Your task to perform on an android device: toggle translation in the chrome app Image 0: 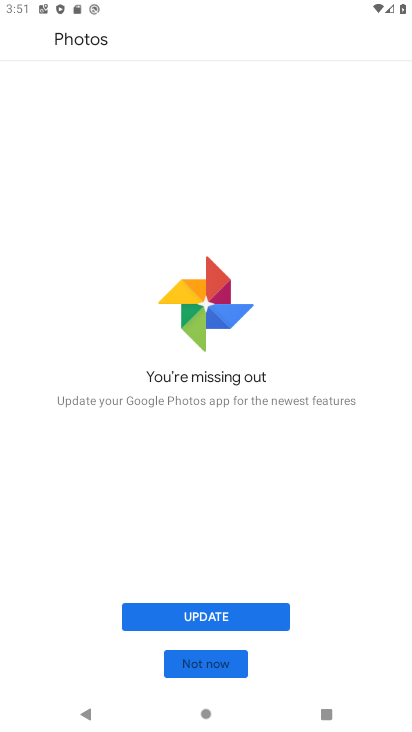
Step 0: press home button
Your task to perform on an android device: toggle translation in the chrome app Image 1: 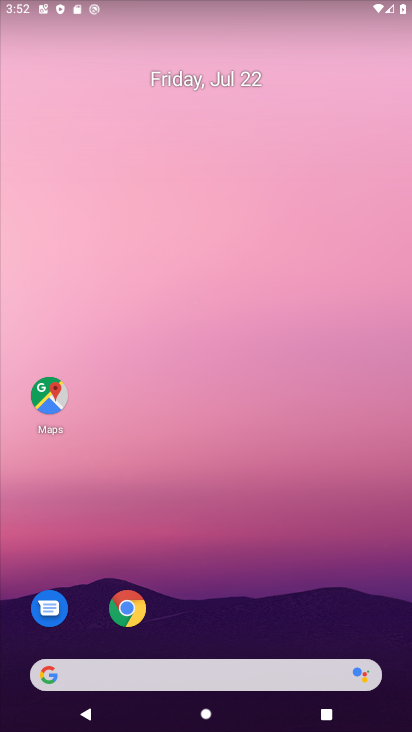
Step 1: click (123, 604)
Your task to perform on an android device: toggle translation in the chrome app Image 2: 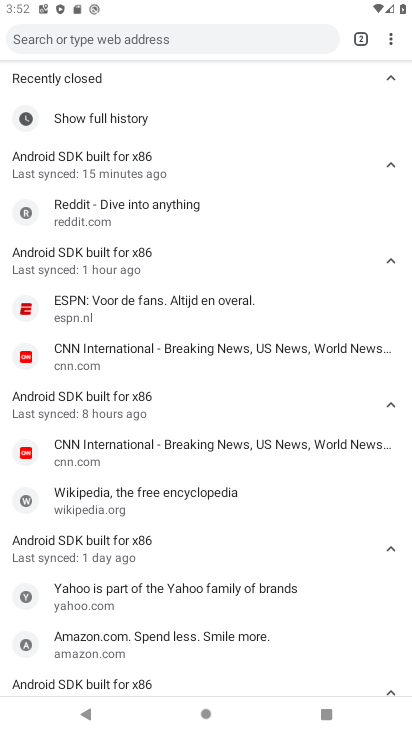
Step 2: click (393, 45)
Your task to perform on an android device: toggle translation in the chrome app Image 3: 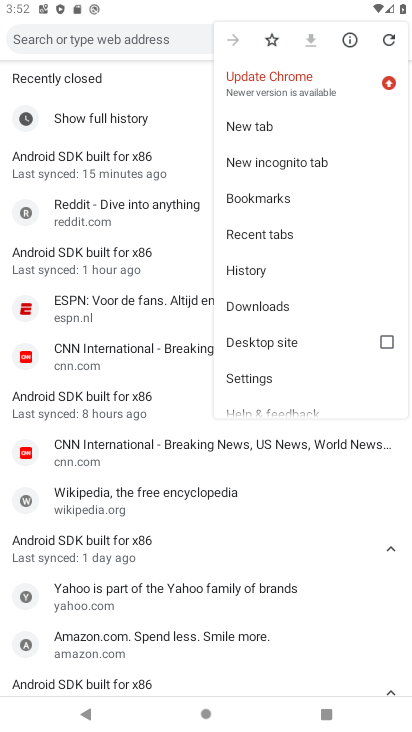
Step 3: click (253, 378)
Your task to perform on an android device: toggle translation in the chrome app Image 4: 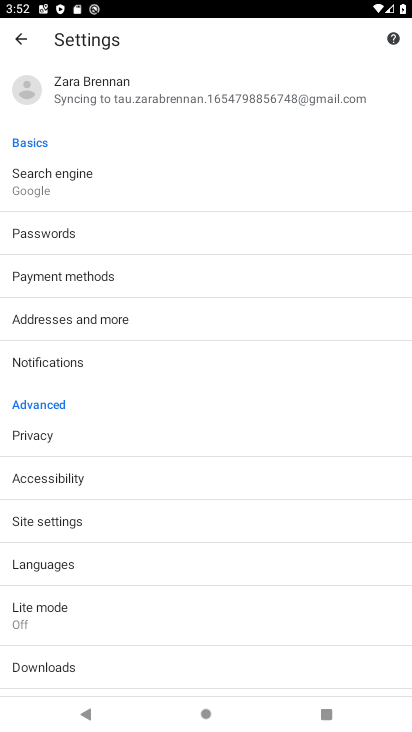
Step 4: click (51, 563)
Your task to perform on an android device: toggle translation in the chrome app Image 5: 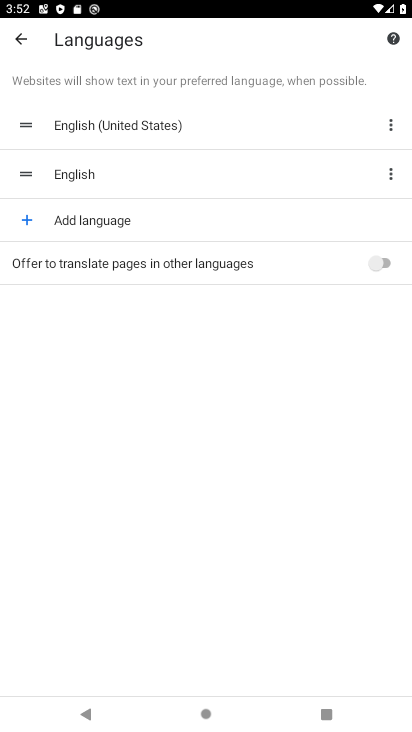
Step 5: click (385, 261)
Your task to perform on an android device: toggle translation in the chrome app Image 6: 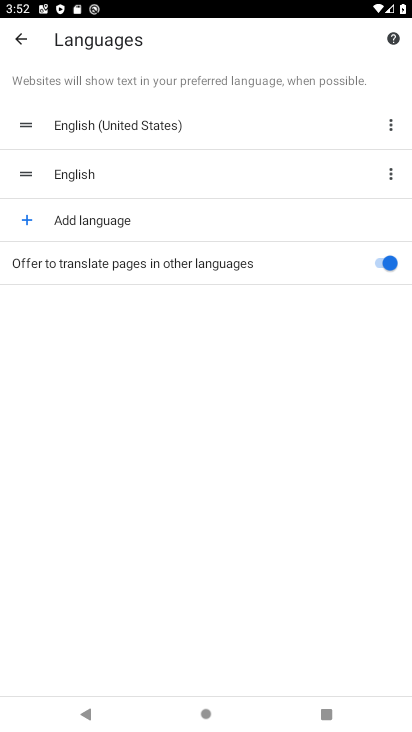
Step 6: task complete